Your task to perform on an android device: Search for Mexican restaurants on Maps Image 0: 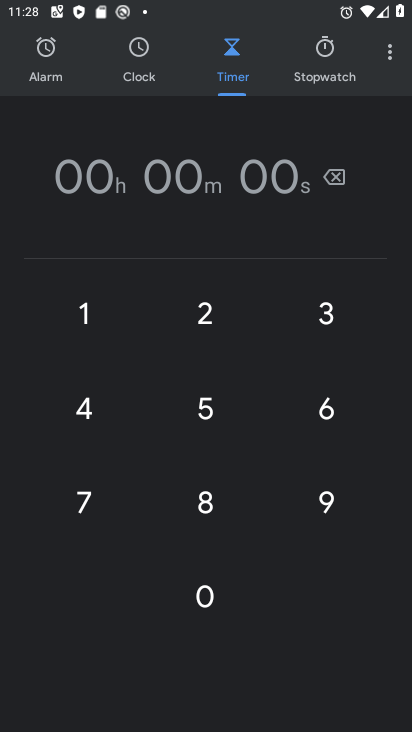
Step 0: press home button
Your task to perform on an android device: Search for Mexican restaurants on Maps Image 1: 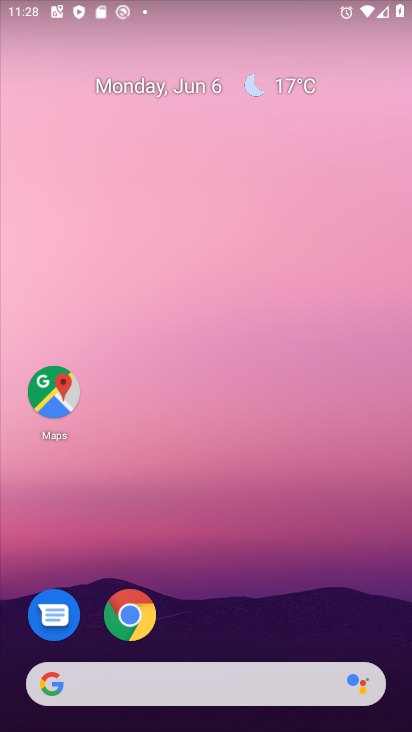
Step 1: click (56, 388)
Your task to perform on an android device: Search for Mexican restaurants on Maps Image 2: 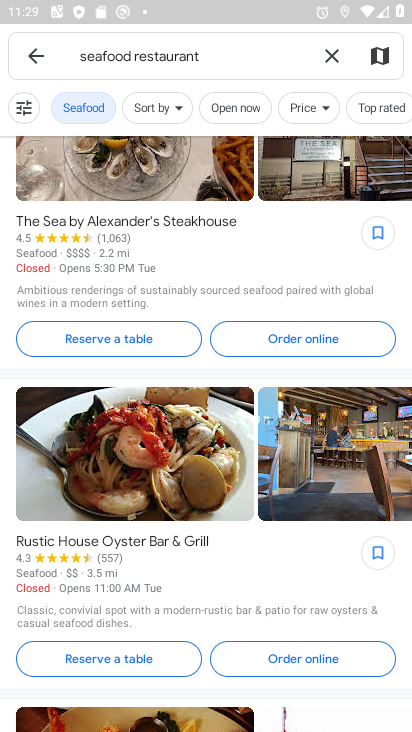
Step 2: press home button
Your task to perform on an android device: Search for Mexican restaurants on Maps Image 3: 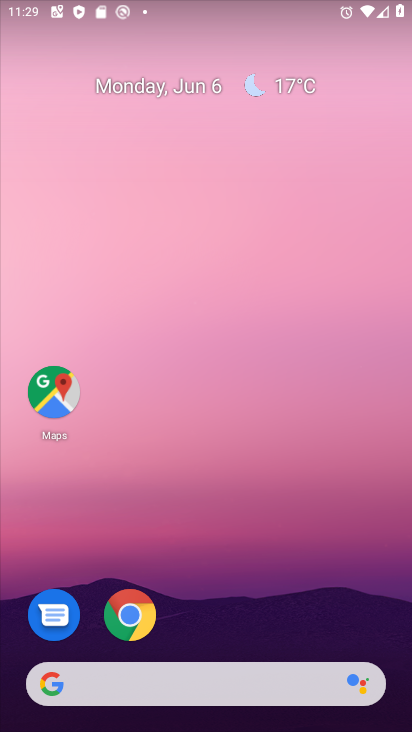
Step 3: click (52, 390)
Your task to perform on an android device: Search for Mexican restaurants on Maps Image 4: 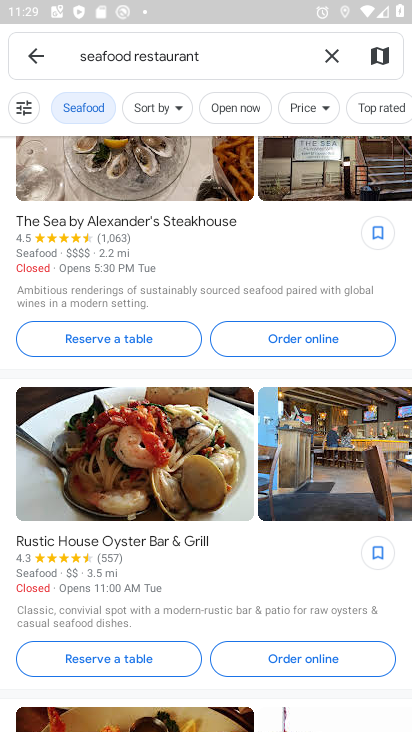
Step 4: click (331, 51)
Your task to perform on an android device: Search for Mexican restaurants on Maps Image 5: 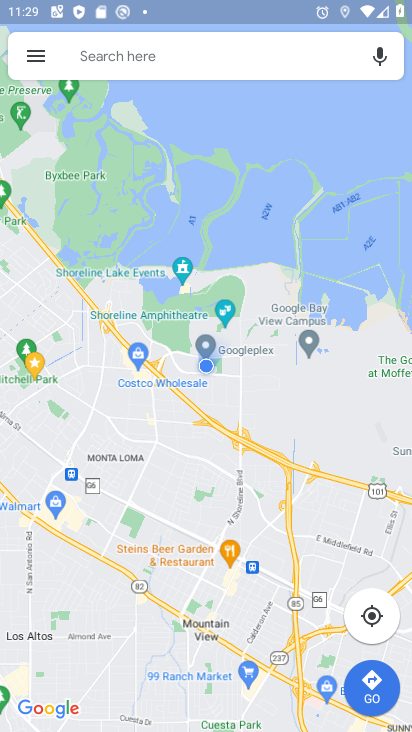
Step 5: click (117, 57)
Your task to perform on an android device: Search for Mexican restaurants on Maps Image 6: 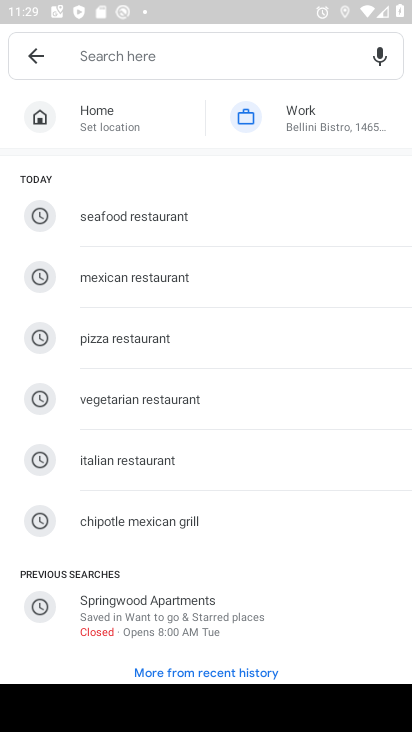
Step 6: click (109, 52)
Your task to perform on an android device: Search for Mexican restaurants on Maps Image 7: 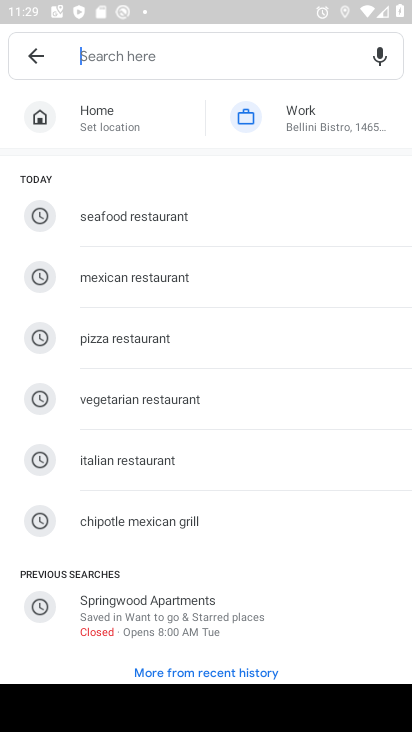
Step 7: type "mexican"
Your task to perform on an android device: Search for Mexican restaurants on Maps Image 8: 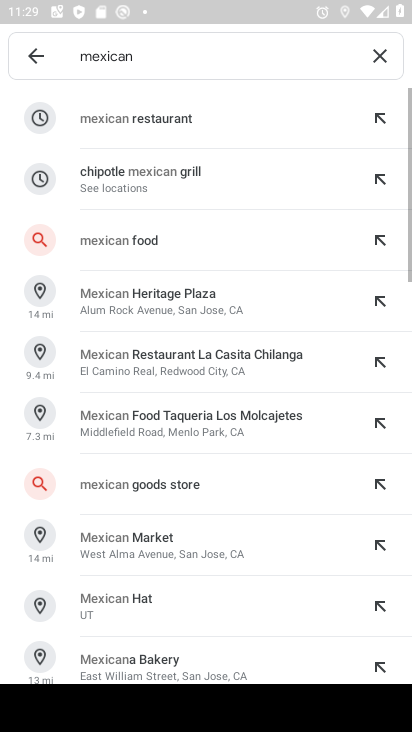
Step 8: click (170, 121)
Your task to perform on an android device: Search for Mexican restaurants on Maps Image 9: 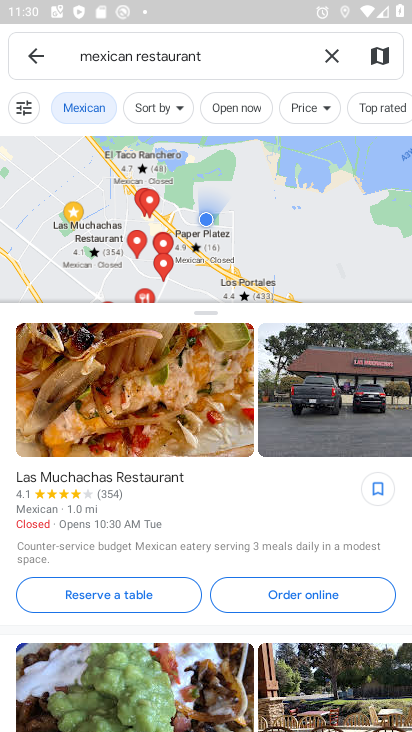
Step 9: task complete